Your task to perform on an android device: toggle airplane mode Image 0: 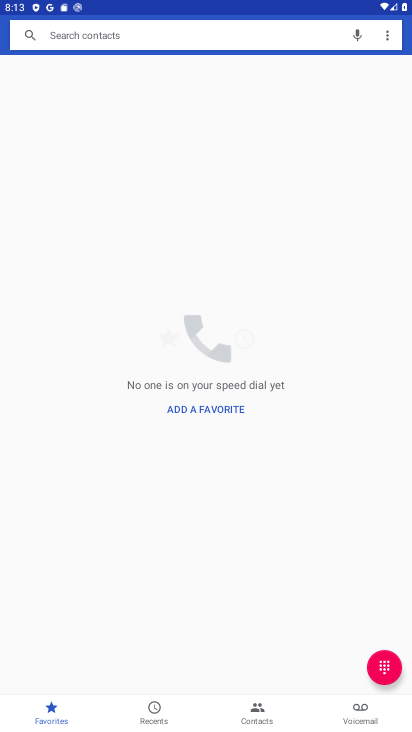
Step 0: press home button
Your task to perform on an android device: toggle airplane mode Image 1: 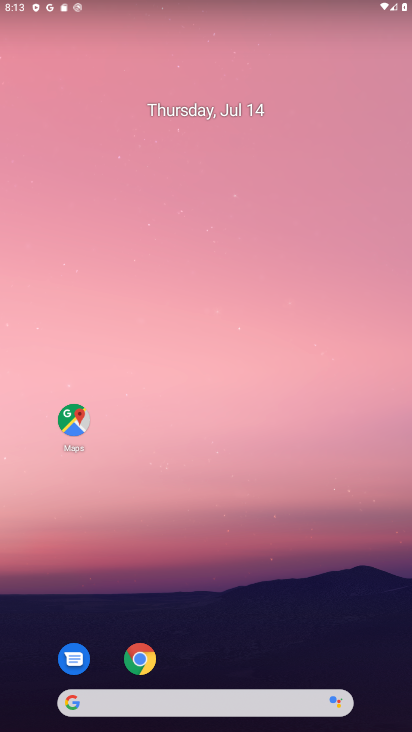
Step 1: drag from (179, 516) to (125, 298)
Your task to perform on an android device: toggle airplane mode Image 2: 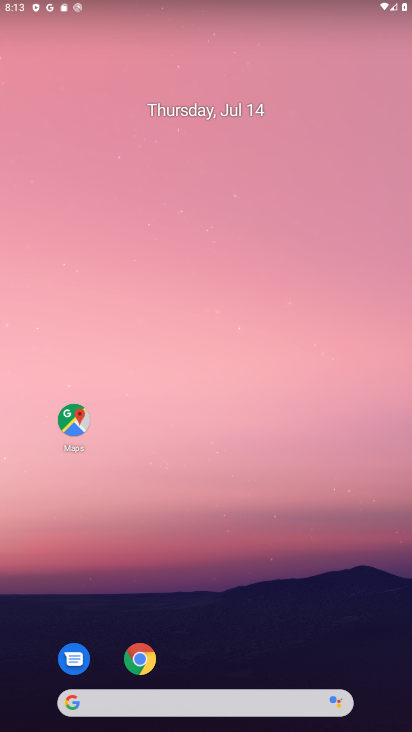
Step 2: drag from (228, 488) to (177, 55)
Your task to perform on an android device: toggle airplane mode Image 3: 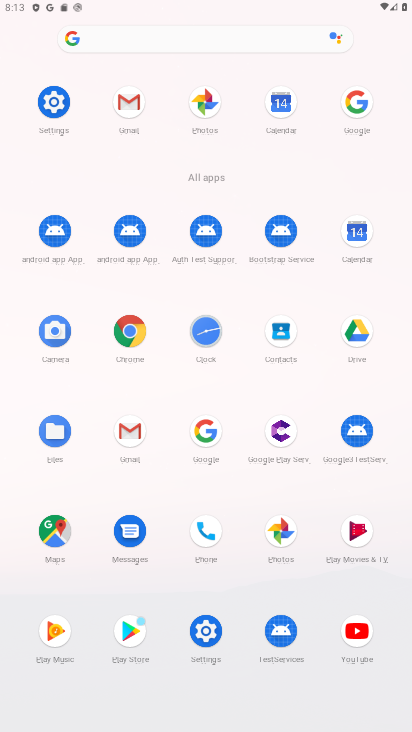
Step 3: click (44, 99)
Your task to perform on an android device: toggle airplane mode Image 4: 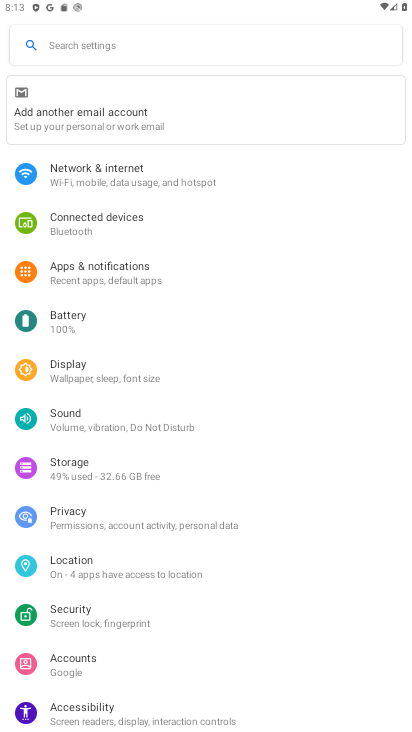
Step 4: click (122, 171)
Your task to perform on an android device: toggle airplane mode Image 5: 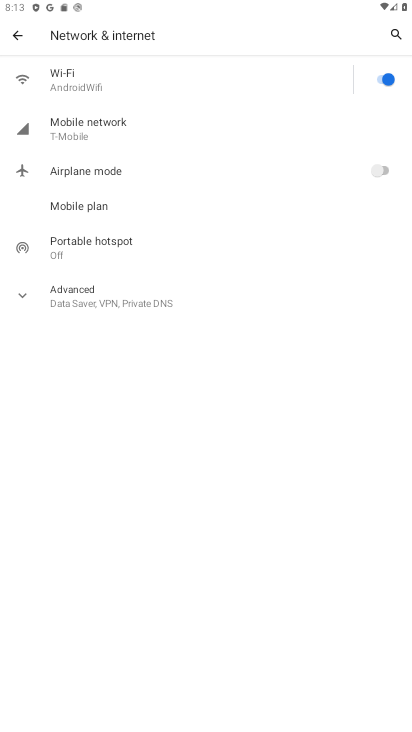
Step 5: click (384, 167)
Your task to perform on an android device: toggle airplane mode Image 6: 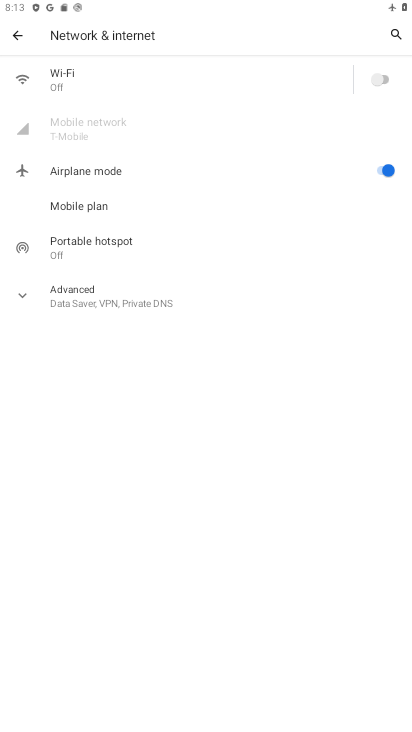
Step 6: task complete